Your task to perform on an android device: turn off airplane mode Image 0: 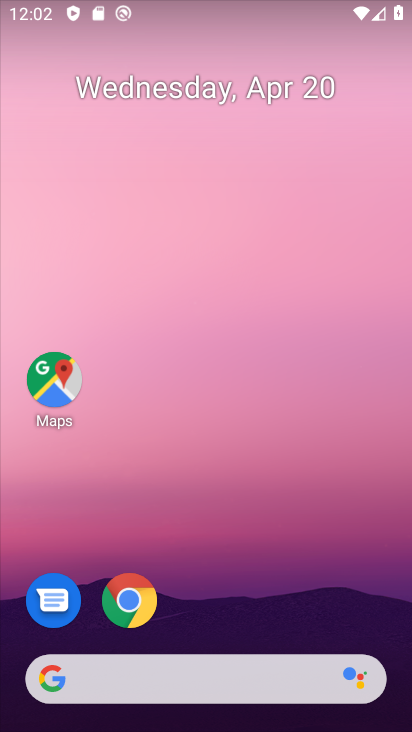
Step 0: drag from (294, 551) to (297, 41)
Your task to perform on an android device: turn off airplane mode Image 1: 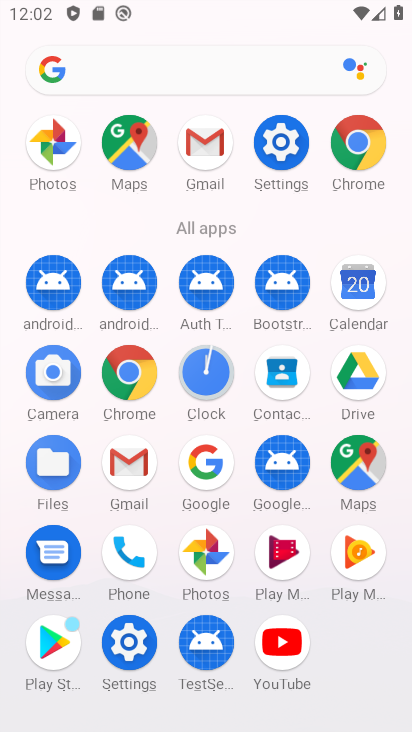
Step 1: click (282, 135)
Your task to perform on an android device: turn off airplane mode Image 2: 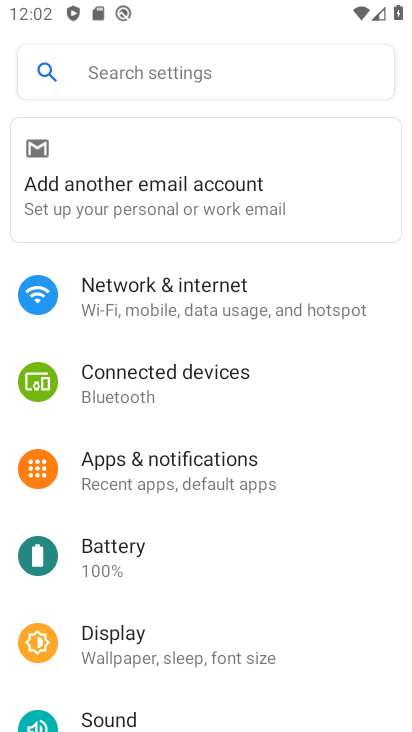
Step 2: click (209, 297)
Your task to perform on an android device: turn off airplane mode Image 3: 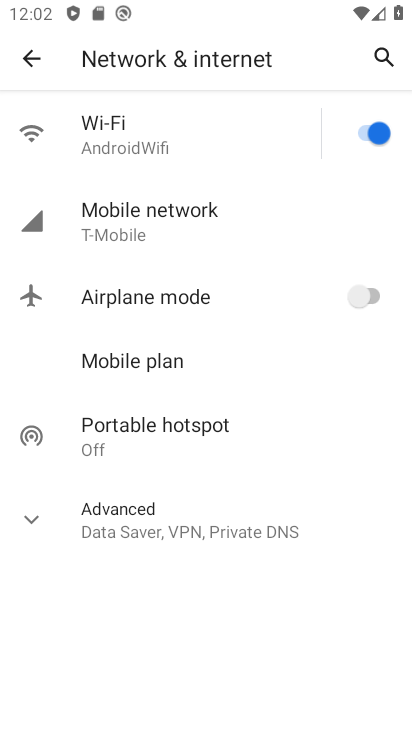
Step 3: click (362, 291)
Your task to perform on an android device: turn off airplane mode Image 4: 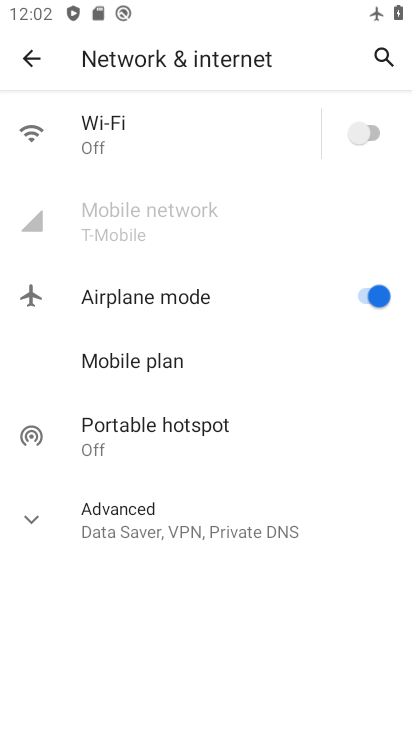
Step 4: click (362, 291)
Your task to perform on an android device: turn off airplane mode Image 5: 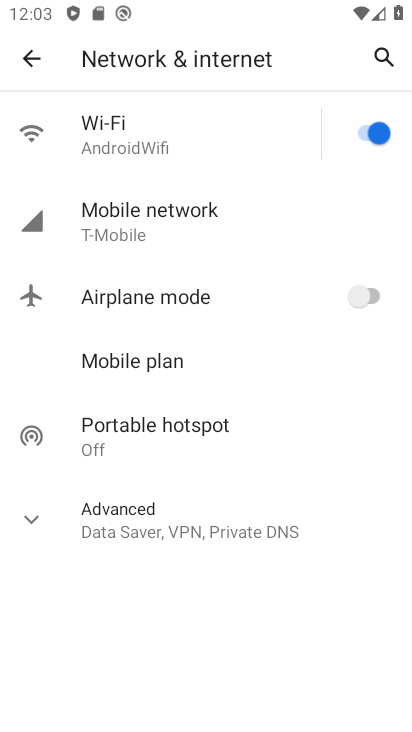
Step 5: task complete